Your task to perform on an android device: stop showing notifications on the lock screen Image 0: 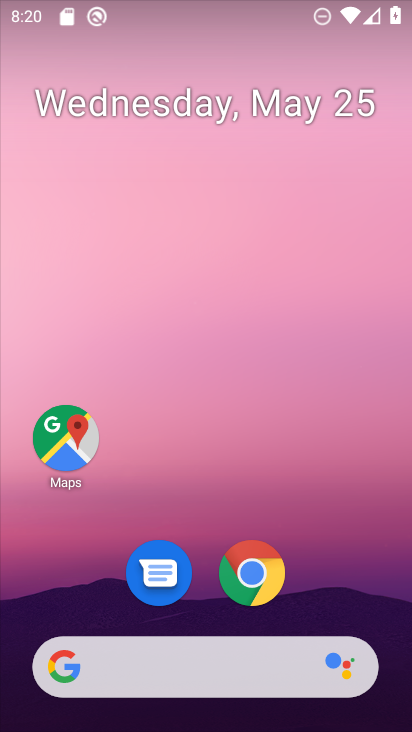
Step 0: drag from (386, 710) to (356, 111)
Your task to perform on an android device: stop showing notifications on the lock screen Image 1: 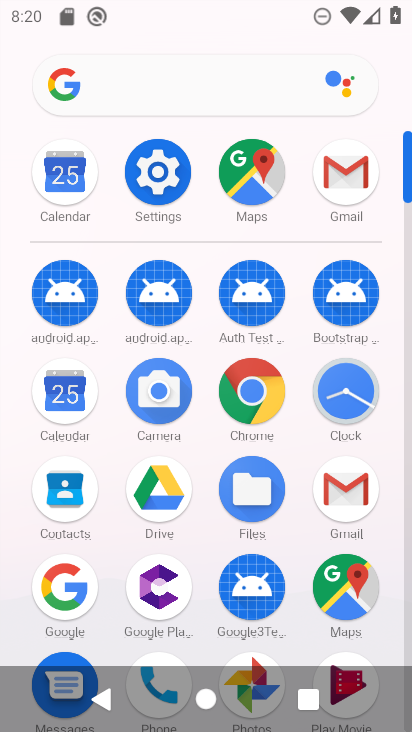
Step 1: click (160, 168)
Your task to perform on an android device: stop showing notifications on the lock screen Image 2: 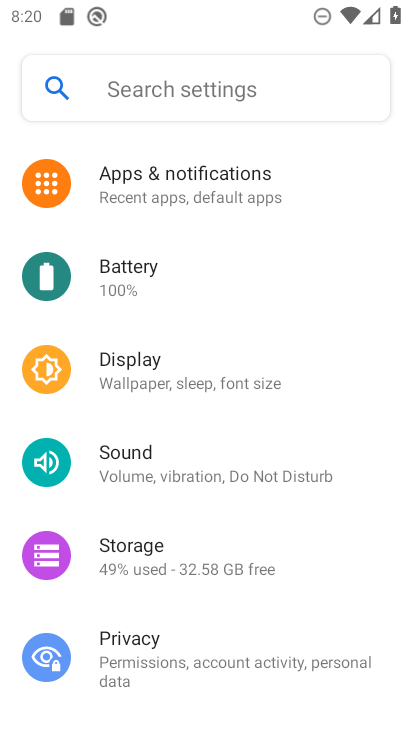
Step 2: click (156, 183)
Your task to perform on an android device: stop showing notifications on the lock screen Image 3: 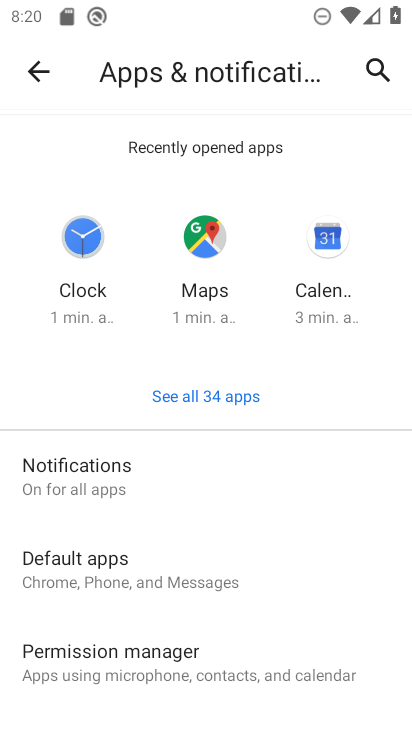
Step 3: click (69, 477)
Your task to perform on an android device: stop showing notifications on the lock screen Image 4: 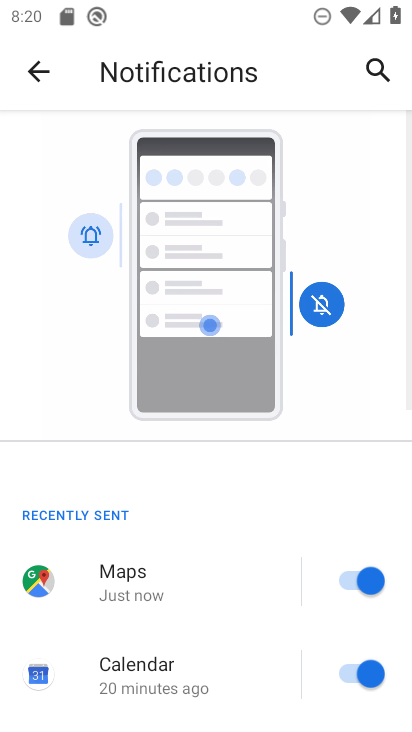
Step 4: drag from (264, 702) to (243, 181)
Your task to perform on an android device: stop showing notifications on the lock screen Image 5: 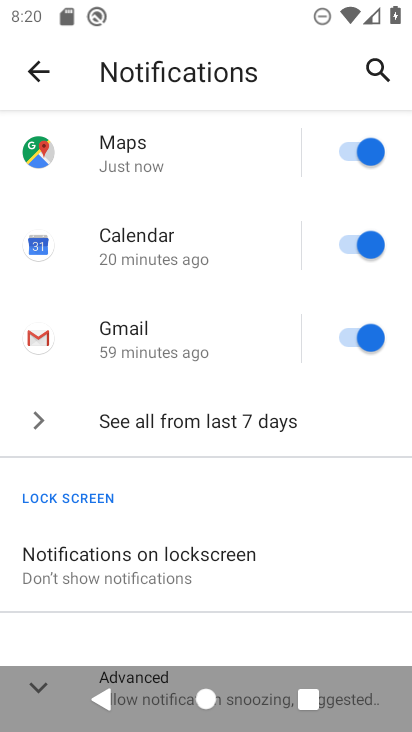
Step 5: click (164, 565)
Your task to perform on an android device: stop showing notifications on the lock screen Image 6: 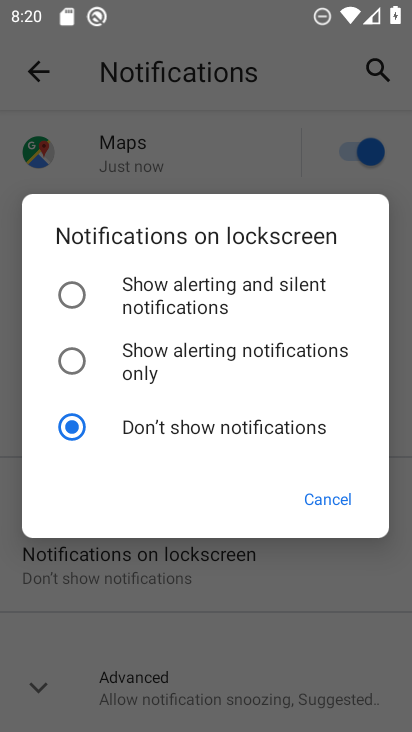
Step 6: task complete